Your task to perform on an android device: Go to Wikipedia Image 0: 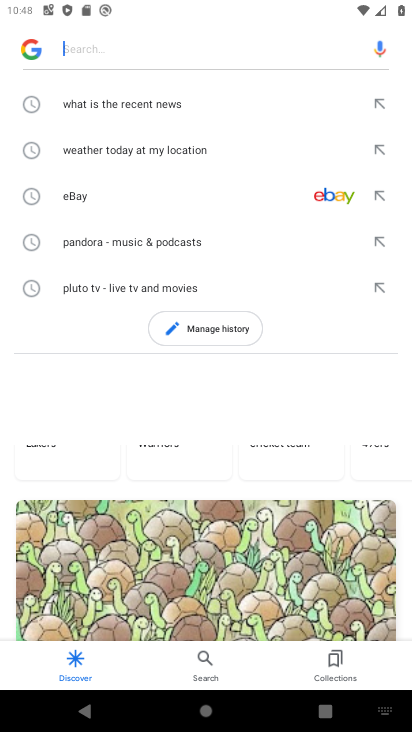
Step 0: press home button
Your task to perform on an android device: Go to Wikipedia Image 1: 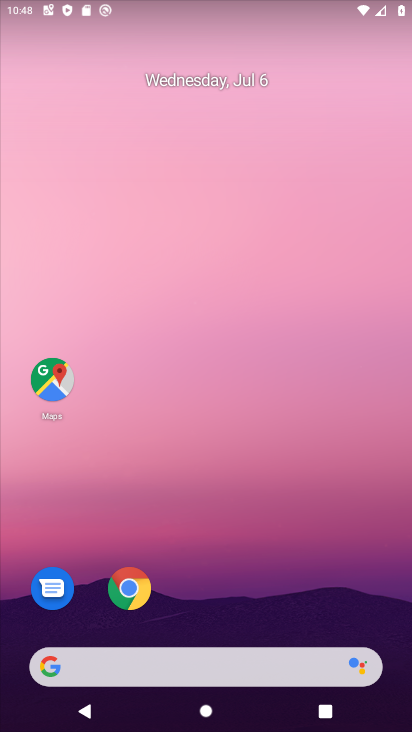
Step 1: drag from (275, 625) to (284, 328)
Your task to perform on an android device: Go to Wikipedia Image 2: 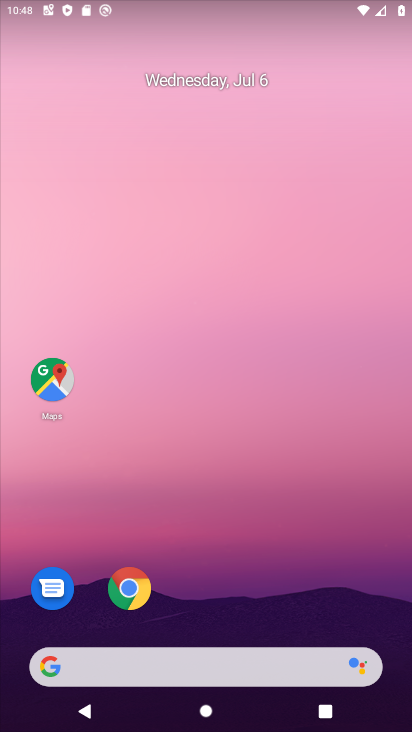
Step 2: drag from (219, 529) to (295, 44)
Your task to perform on an android device: Go to Wikipedia Image 3: 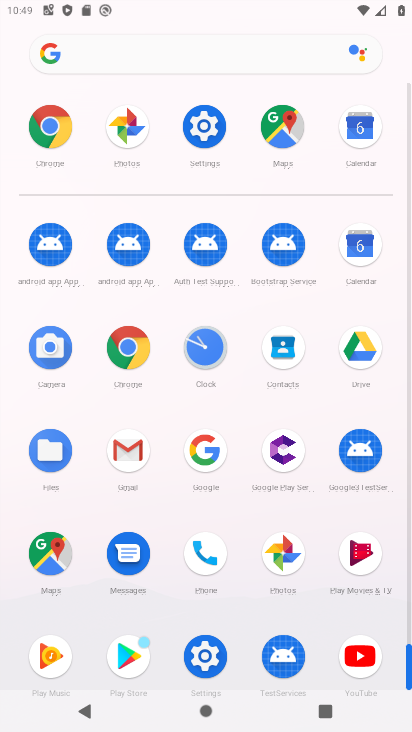
Step 3: click (55, 124)
Your task to perform on an android device: Go to Wikipedia Image 4: 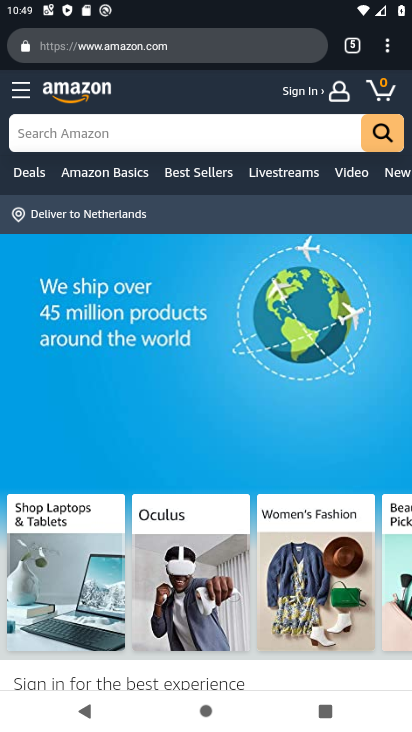
Step 4: click (385, 42)
Your task to perform on an android device: Go to Wikipedia Image 5: 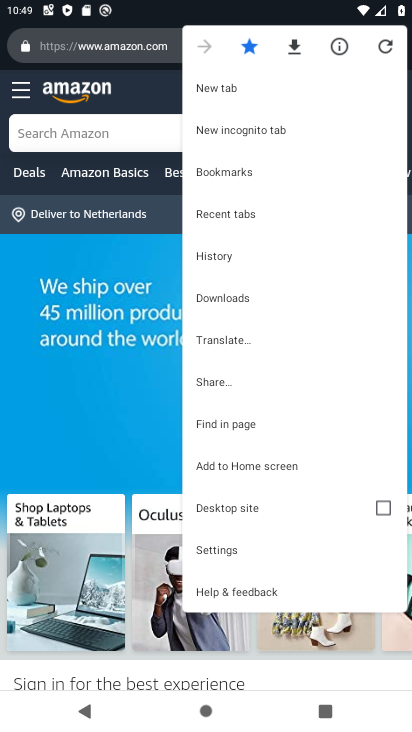
Step 5: click (223, 87)
Your task to perform on an android device: Go to Wikipedia Image 6: 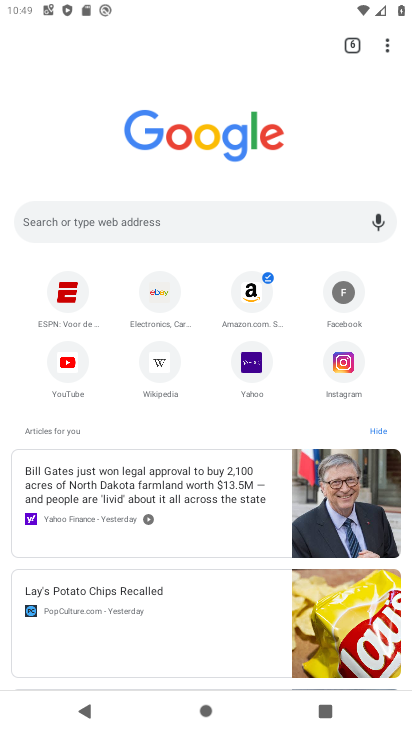
Step 6: click (157, 350)
Your task to perform on an android device: Go to Wikipedia Image 7: 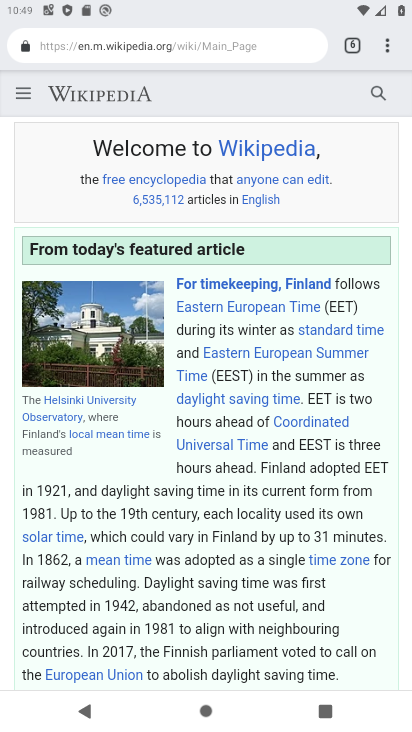
Step 7: task complete